Your task to perform on an android device: change text size in settings app Image 0: 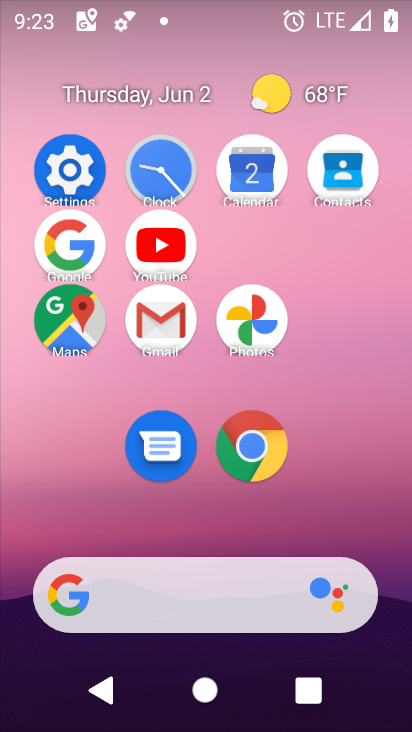
Step 0: click (47, 172)
Your task to perform on an android device: change text size in settings app Image 1: 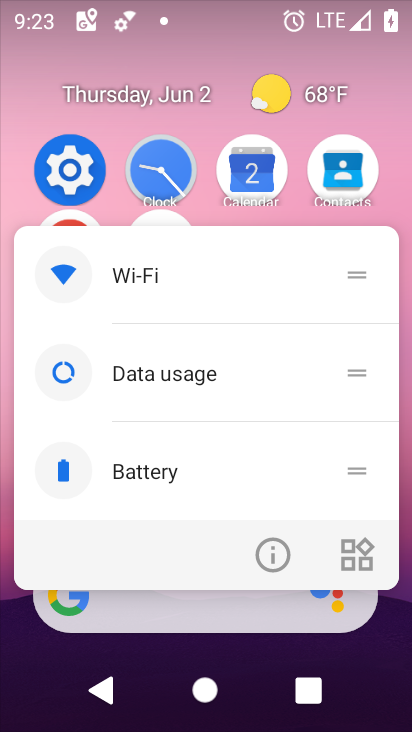
Step 1: click (47, 169)
Your task to perform on an android device: change text size in settings app Image 2: 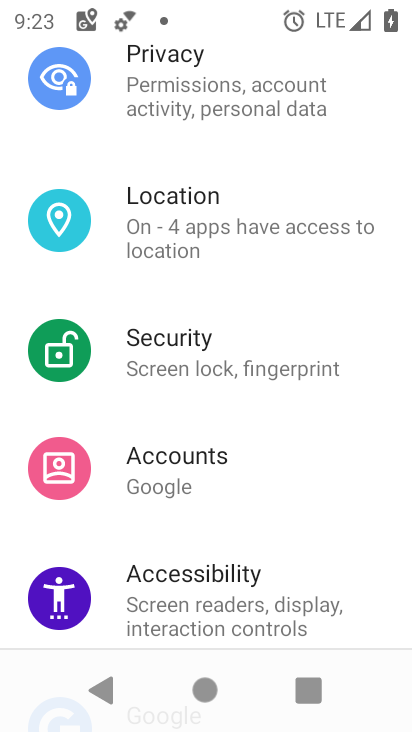
Step 2: drag from (331, 147) to (327, 573)
Your task to perform on an android device: change text size in settings app Image 3: 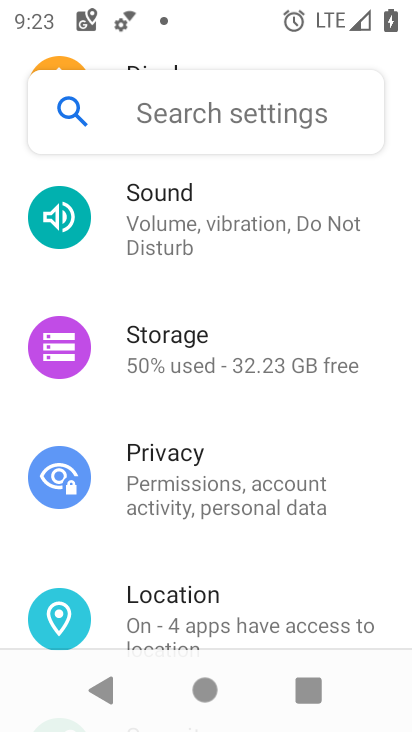
Step 3: drag from (302, 331) to (289, 630)
Your task to perform on an android device: change text size in settings app Image 4: 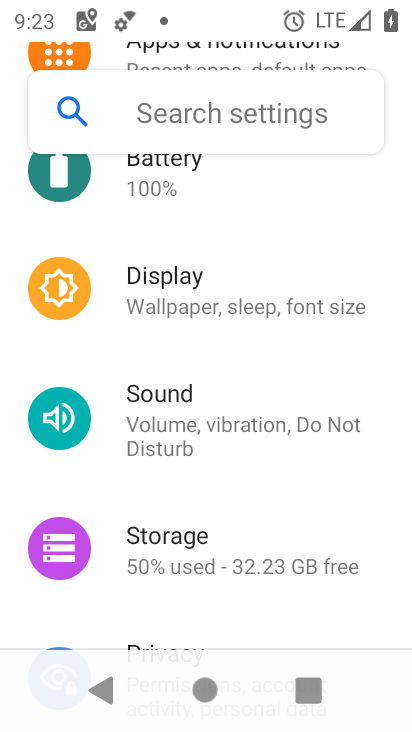
Step 4: click (286, 332)
Your task to perform on an android device: change text size in settings app Image 5: 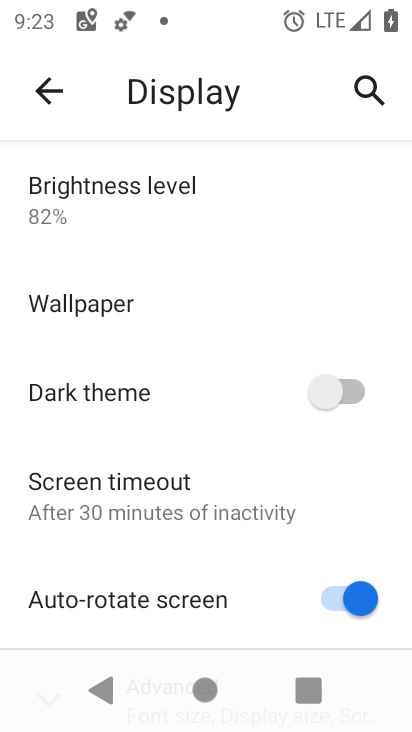
Step 5: drag from (215, 526) to (233, 193)
Your task to perform on an android device: change text size in settings app Image 6: 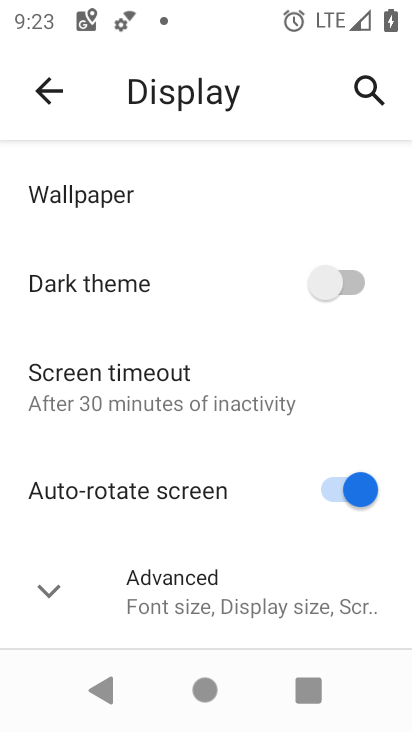
Step 6: click (192, 581)
Your task to perform on an android device: change text size in settings app Image 7: 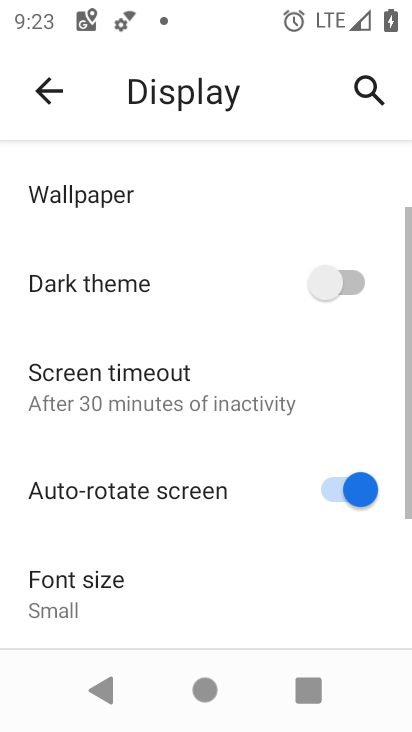
Step 7: click (192, 581)
Your task to perform on an android device: change text size in settings app Image 8: 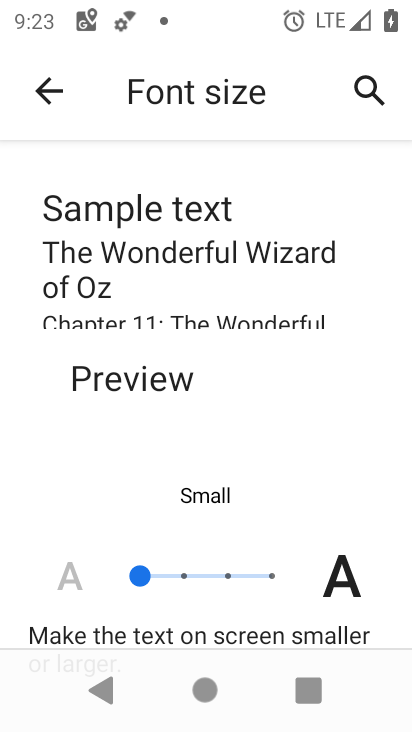
Step 8: click (182, 569)
Your task to perform on an android device: change text size in settings app Image 9: 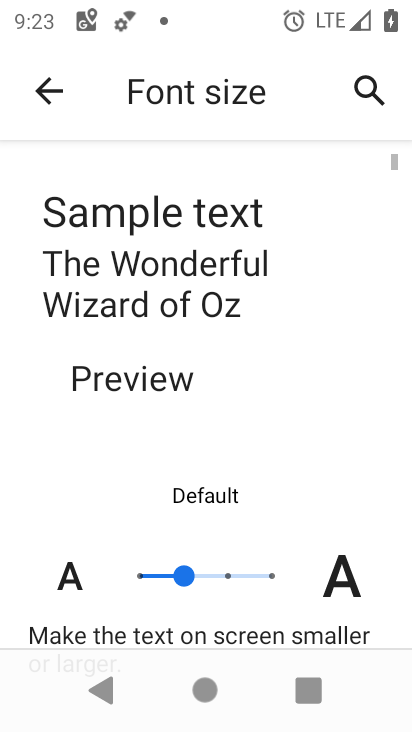
Step 9: task complete